Your task to perform on an android device: toggle priority inbox in the gmail app Image 0: 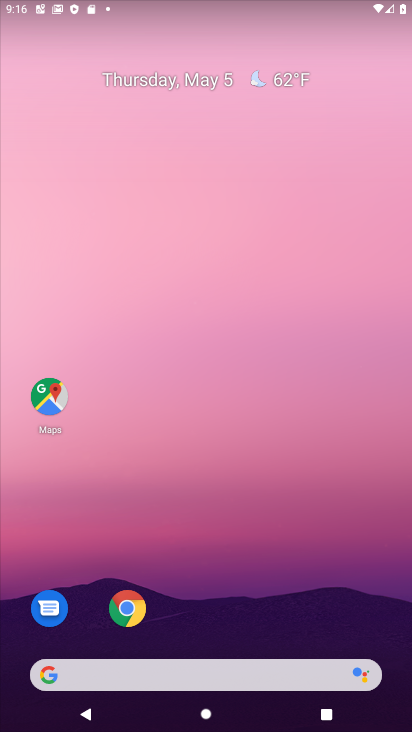
Step 0: drag from (314, 621) to (263, 7)
Your task to perform on an android device: toggle priority inbox in the gmail app Image 1: 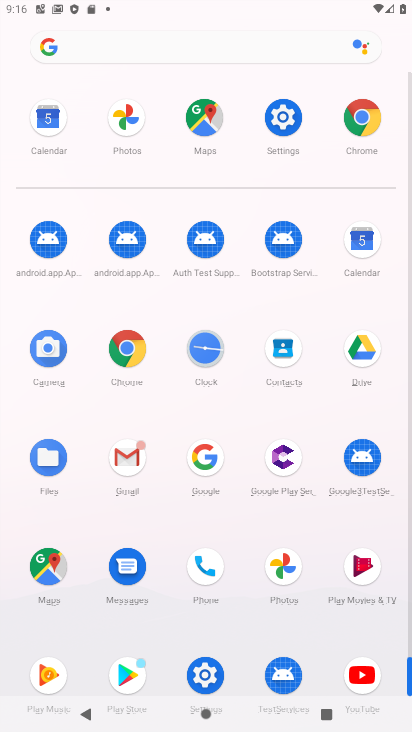
Step 1: drag from (9, 551) to (18, 267)
Your task to perform on an android device: toggle priority inbox in the gmail app Image 2: 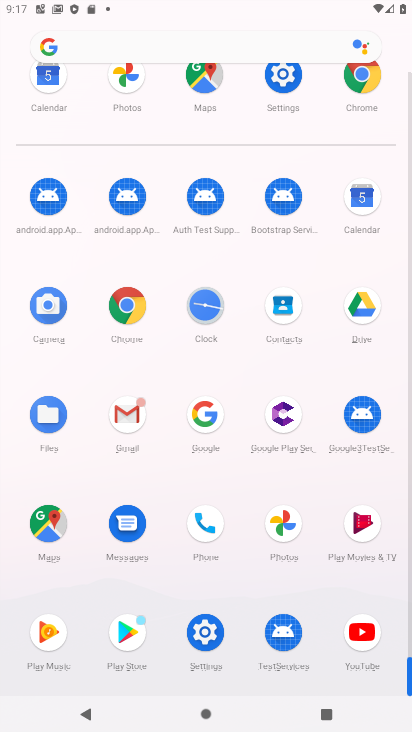
Step 2: click (122, 410)
Your task to perform on an android device: toggle priority inbox in the gmail app Image 3: 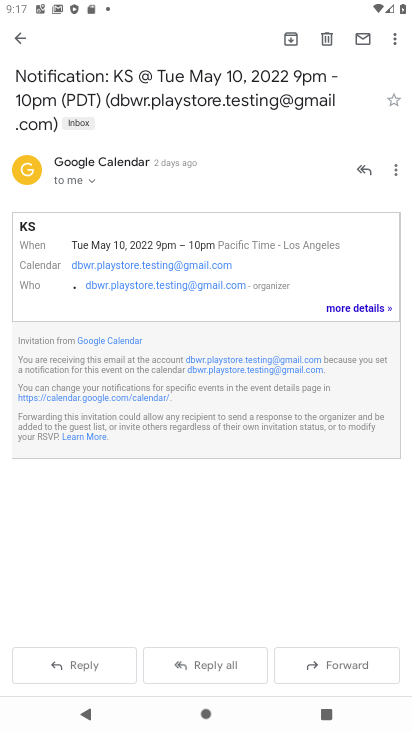
Step 3: click (21, 32)
Your task to perform on an android device: toggle priority inbox in the gmail app Image 4: 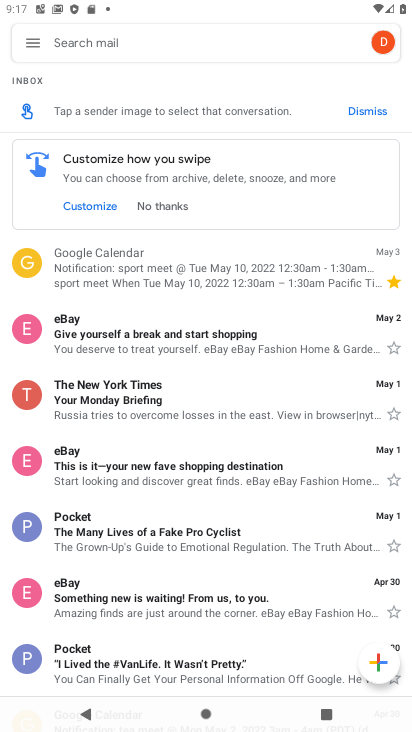
Step 4: click (35, 44)
Your task to perform on an android device: toggle priority inbox in the gmail app Image 5: 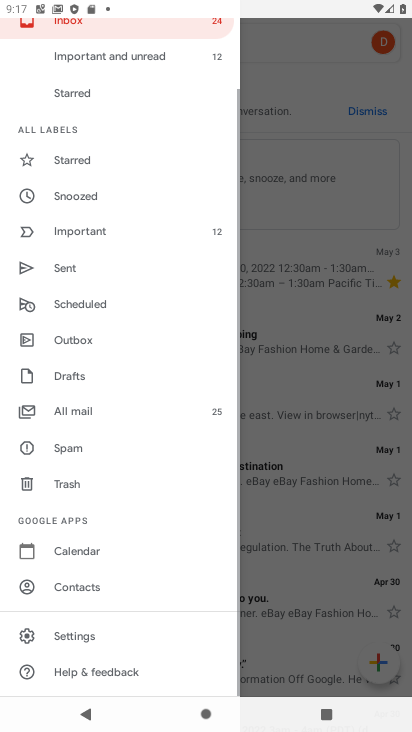
Step 5: drag from (156, 608) to (156, 201)
Your task to perform on an android device: toggle priority inbox in the gmail app Image 6: 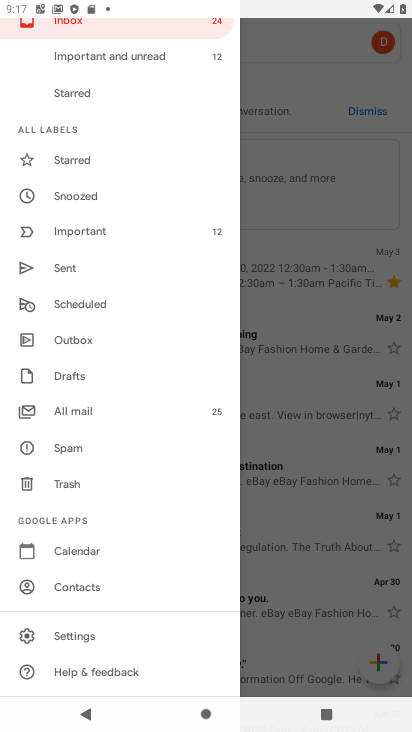
Step 6: click (99, 637)
Your task to perform on an android device: toggle priority inbox in the gmail app Image 7: 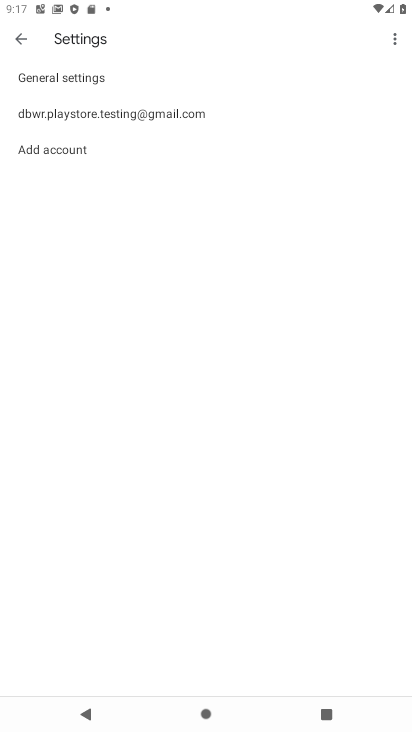
Step 7: click (79, 108)
Your task to perform on an android device: toggle priority inbox in the gmail app Image 8: 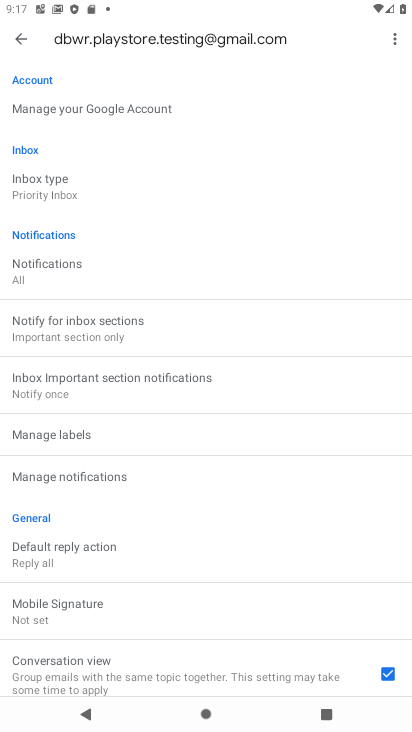
Step 8: click (76, 191)
Your task to perform on an android device: toggle priority inbox in the gmail app Image 9: 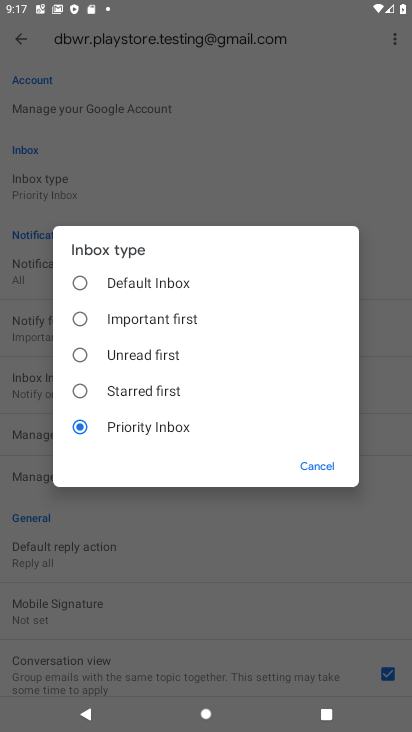
Step 9: click (132, 380)
Your task to perform on an android device: toggle priority inbox in the gmail app Image 10: 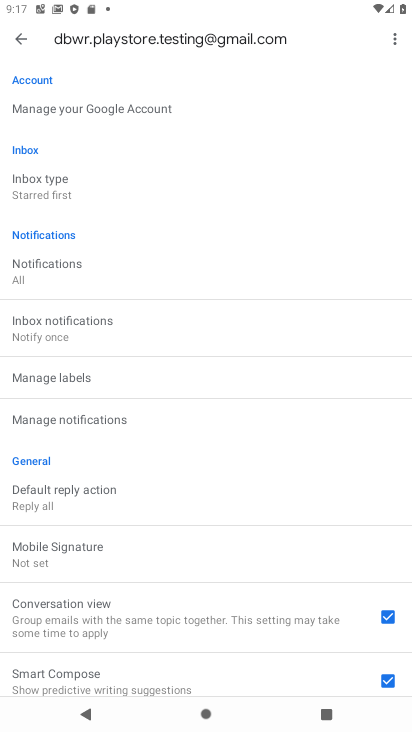
Step 10: task complete